Your task to perform on an android device: change your default location settings in chrome Image 0: 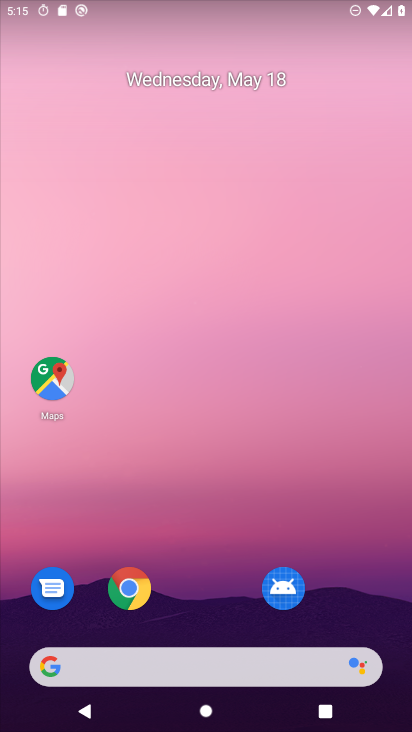
Step 0: press home button
Your task to perform on an android device: change your default location settings in chrome Image 1: 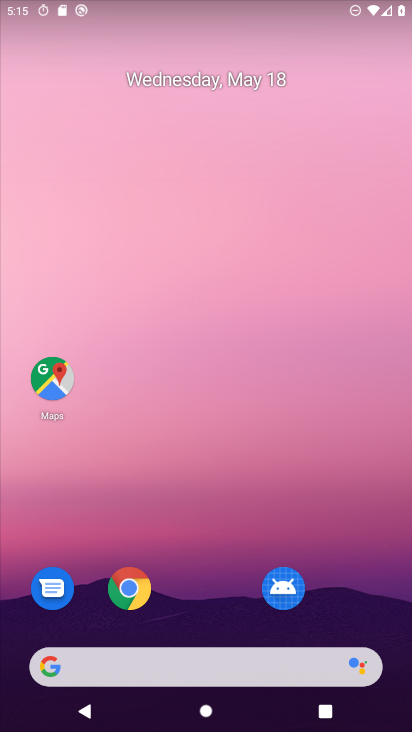
Step 1: drag from (215, 510) to (290, 129)
Your task to perform on an android device: change your default location settings in chrome Image 2: 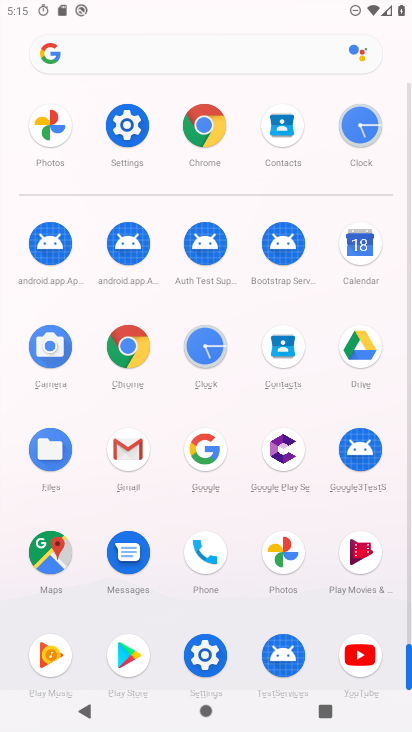
Step 2: click (197, 119)
Your task to perform on an android device: change your default location settings in chrome Image 3: 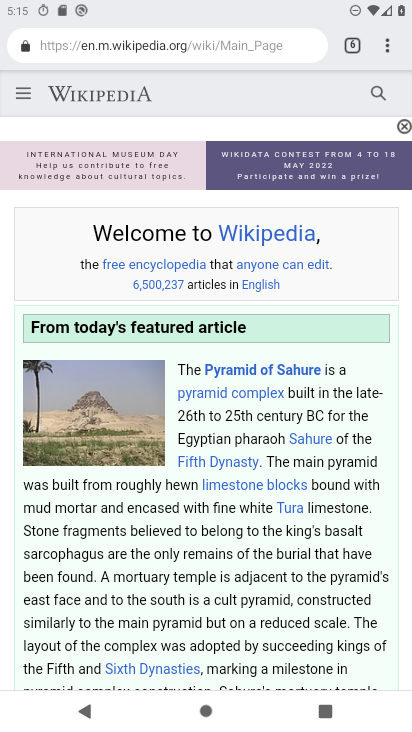
Step 3: drag from (387, 37) to (221, 549)
Your task to perform on an android device: change your default location settings in chrome Image 4: 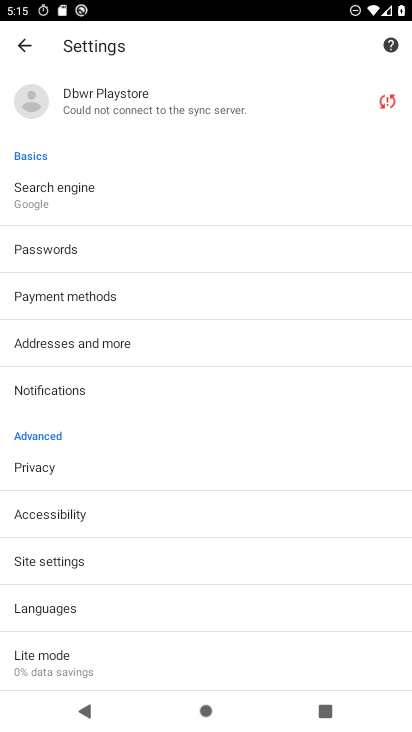
Step 4: drag from (201, 641) to (244, 284)
Your task to perform on an android device: change your default location settings in chrome Image 5: 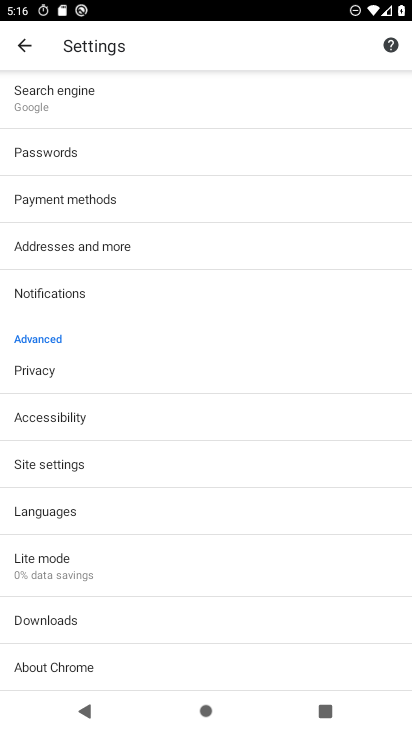
Step 5: click (46, 467)
Your task to perform on an android device: change your default location settings in chrome Image 6: 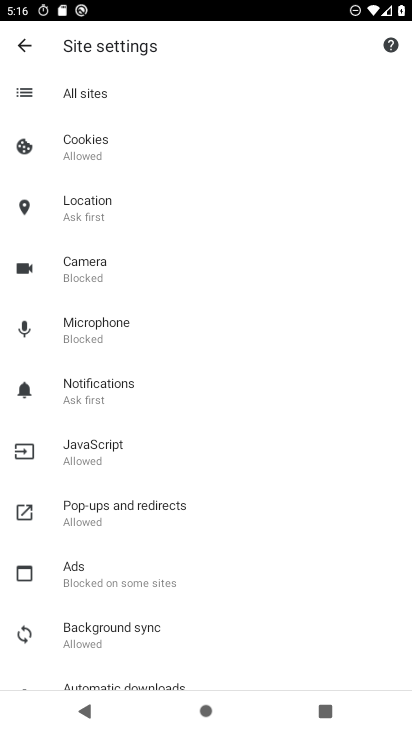
Step 6: drag from (132, 542) to (133, 378)
Your task to perform on an android device: change your default location settings in chrome Image 7: 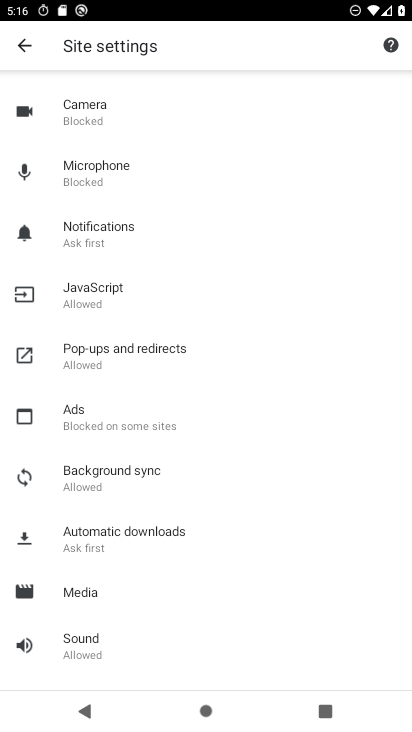
Step 7: drag from (187, 587) to (256, 256)
Your task to perform on an android device: change your default location settings in chrome Image 8: 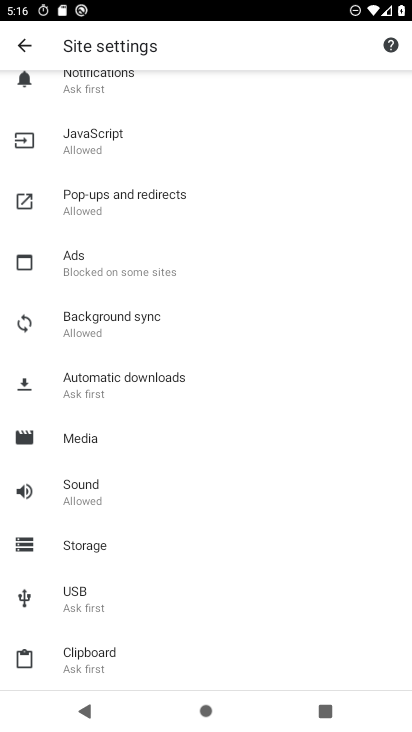
Step 8: drag from (199, 109) to (187, 603)
Your task to perform on an android device: change your default location settings in chrome Image 9: 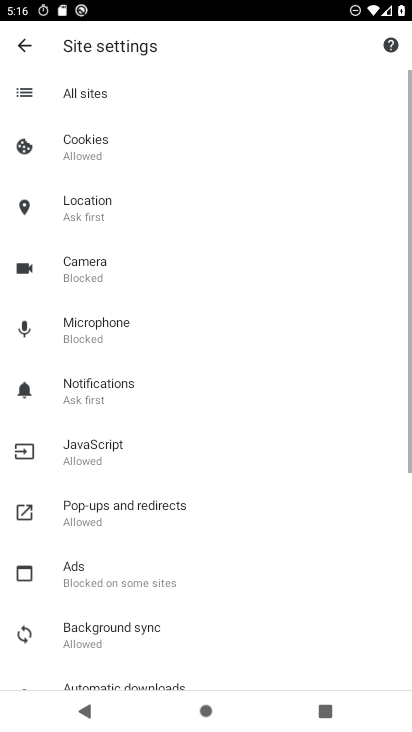
Step 9: drag from (244, 162) to (223, 589)
Your task to perform on an android device: change your default location settings in chrome Image 10: 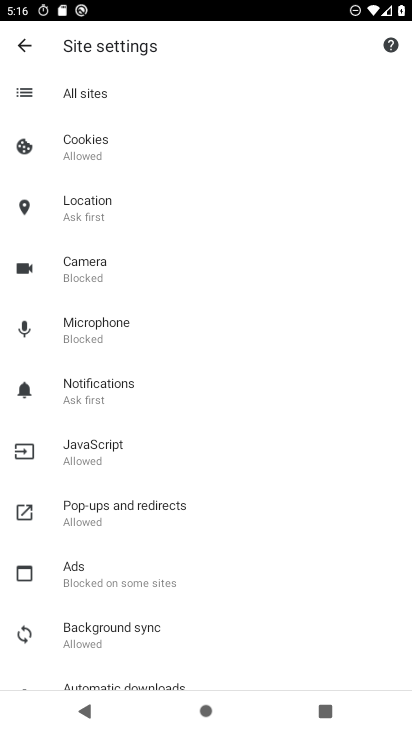
Step 10: click (83, 199)
Your task to perform on an android device: change your default location settings in chrome Image 11: 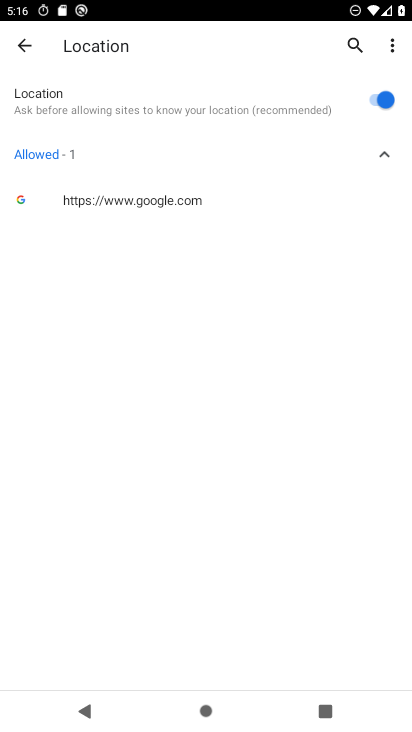
Step 11: task complete